Your task to perform on an android device: Go to wifi settings Image 0: 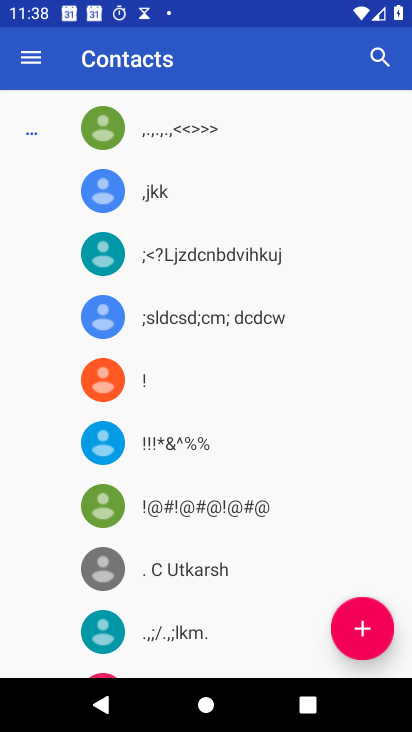
Step 0: press home button
Your task to perform on an android device: Go to wifi settings Image 1: 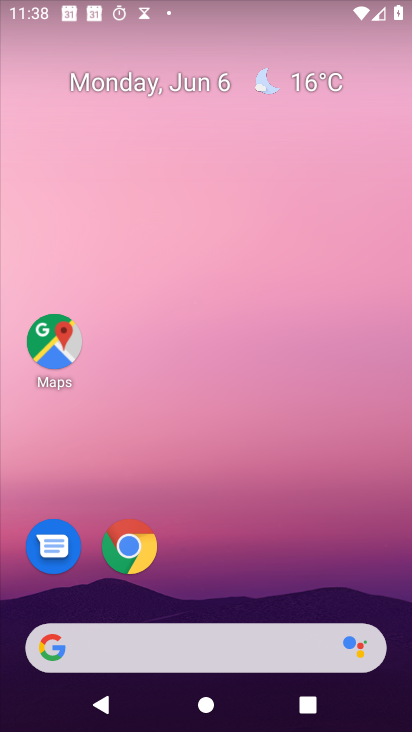
Step 1: drag from (229, 608) to (289, 124)
Your task to perform on an android device: Go to wifi settings Image 2: 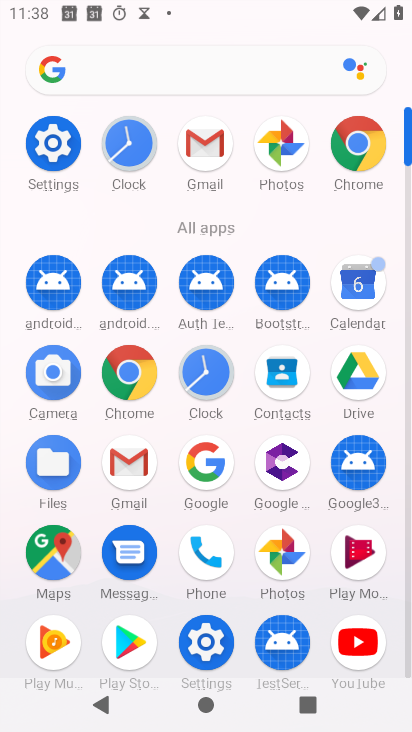
Step 2: click (204, 639)
Your task to perform on an android device: Go to wifi settings Image 3: 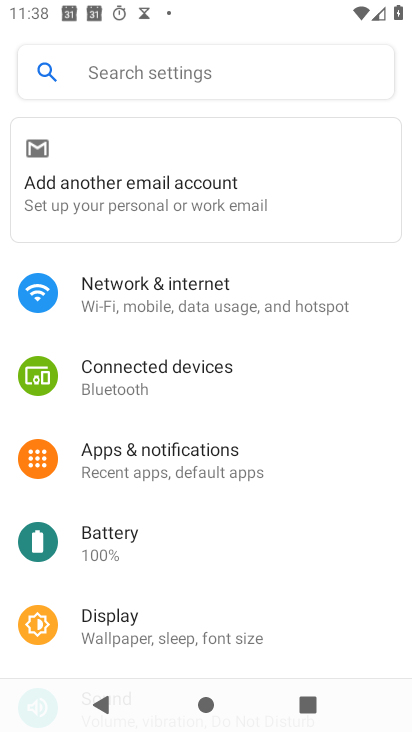
Step 3: click (140, 287)
Your task to perform on an android device: Go to wifi settings Image 4: 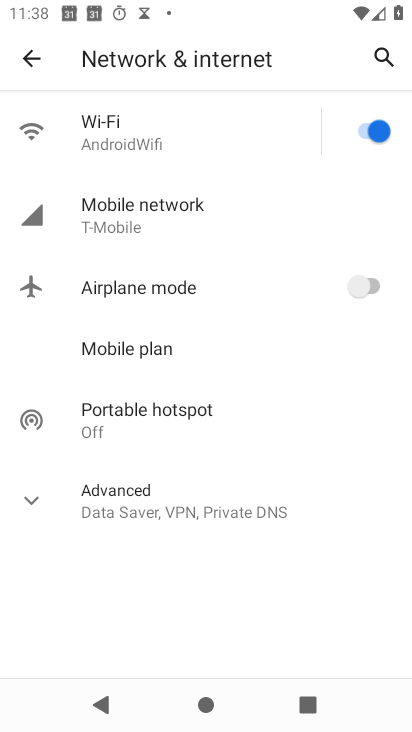
Step 4: click (117, 148)
Your task to perform on an android device: Go to wifi settings Image 5: 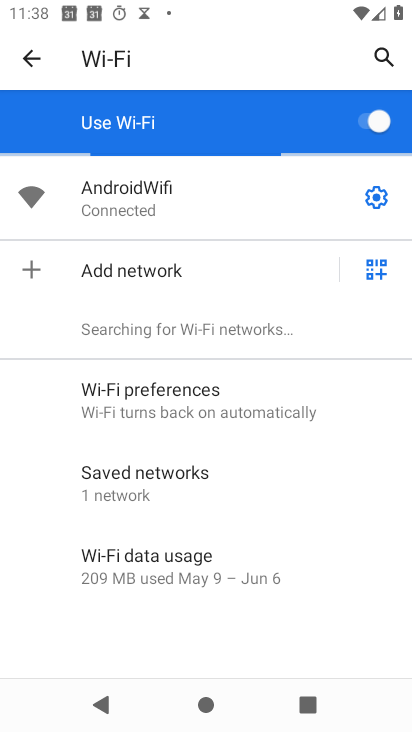
Step 5: task complete